Your task to perform on an android device: Where can I buy a nice beach tent? Image 0: 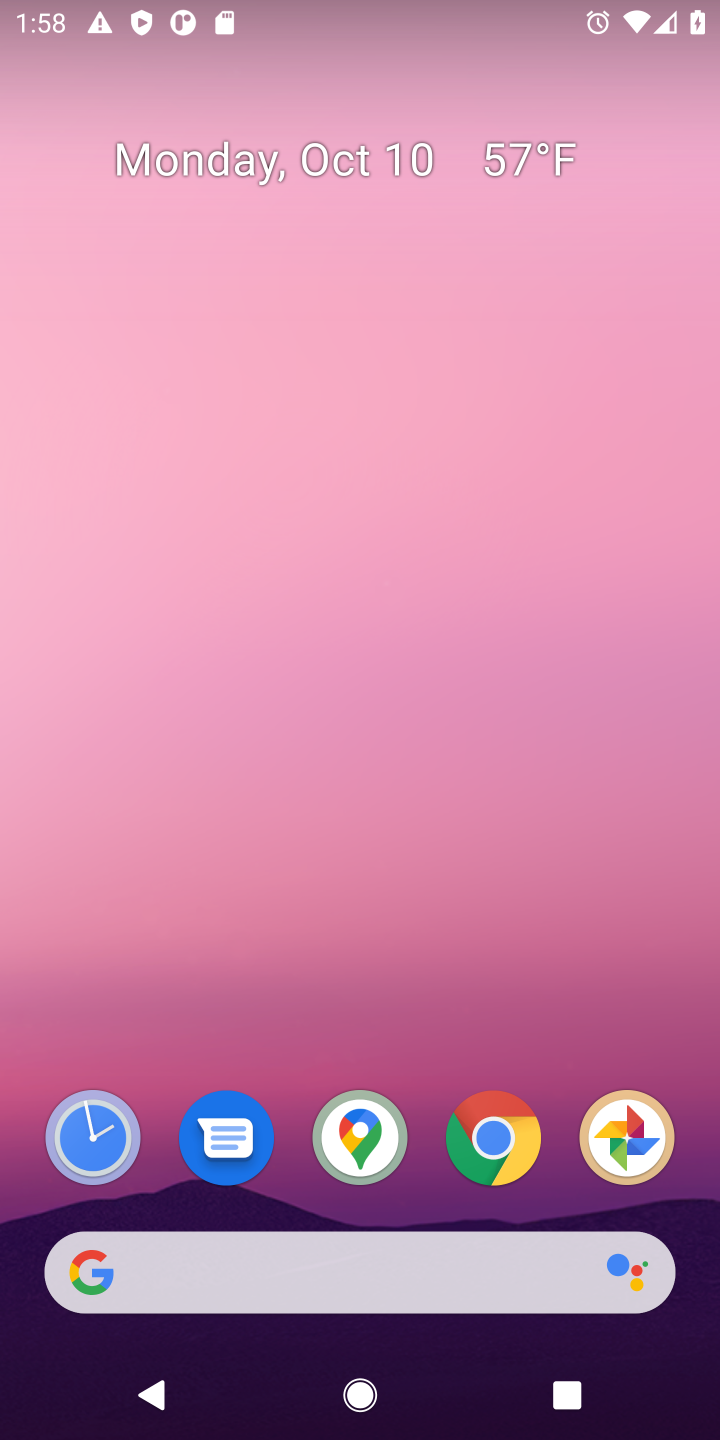
Step 0: click (343, 1263)
Your task to perform on an android device: Where can I buy a nice beach tent? Image 1: 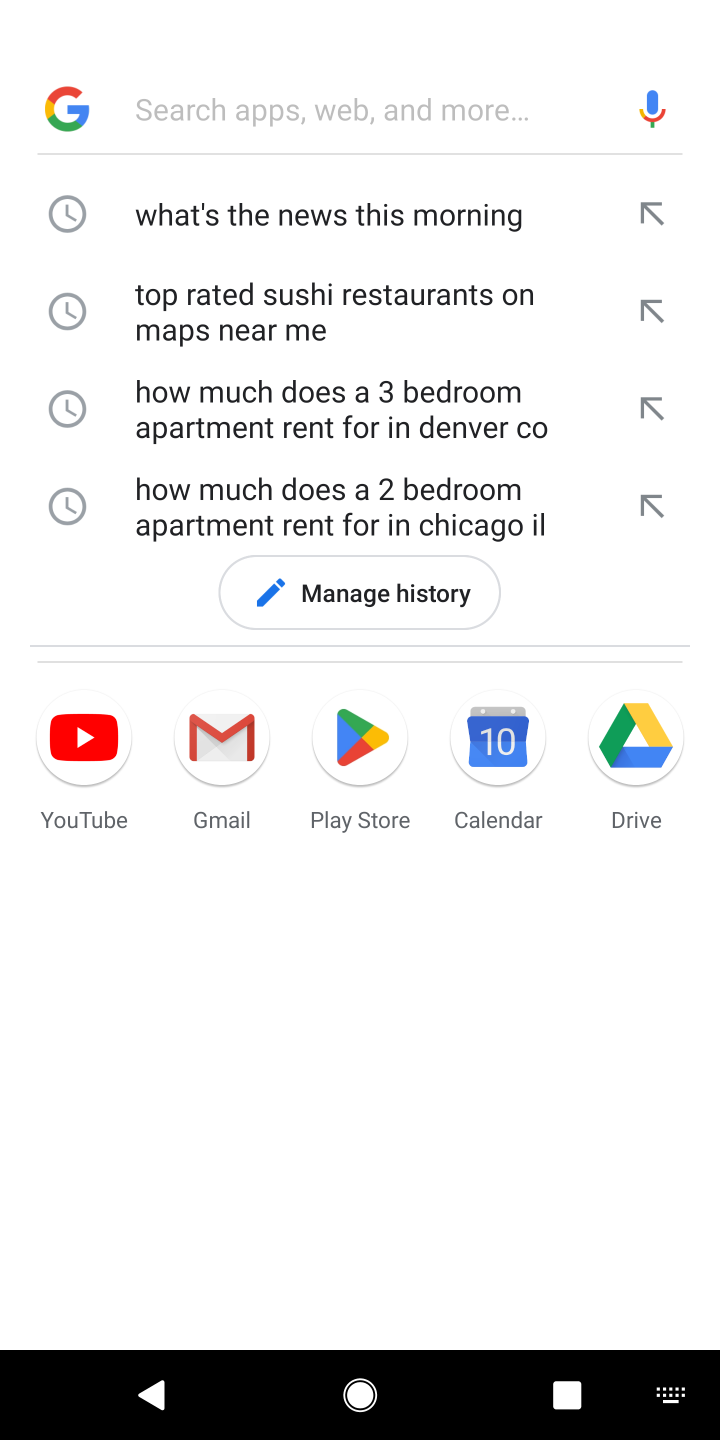
Step 1: type "where can I buy a nice beach tent?"
Your task to perform on an android device: Where can I buy a nice beach tent? Image 2: 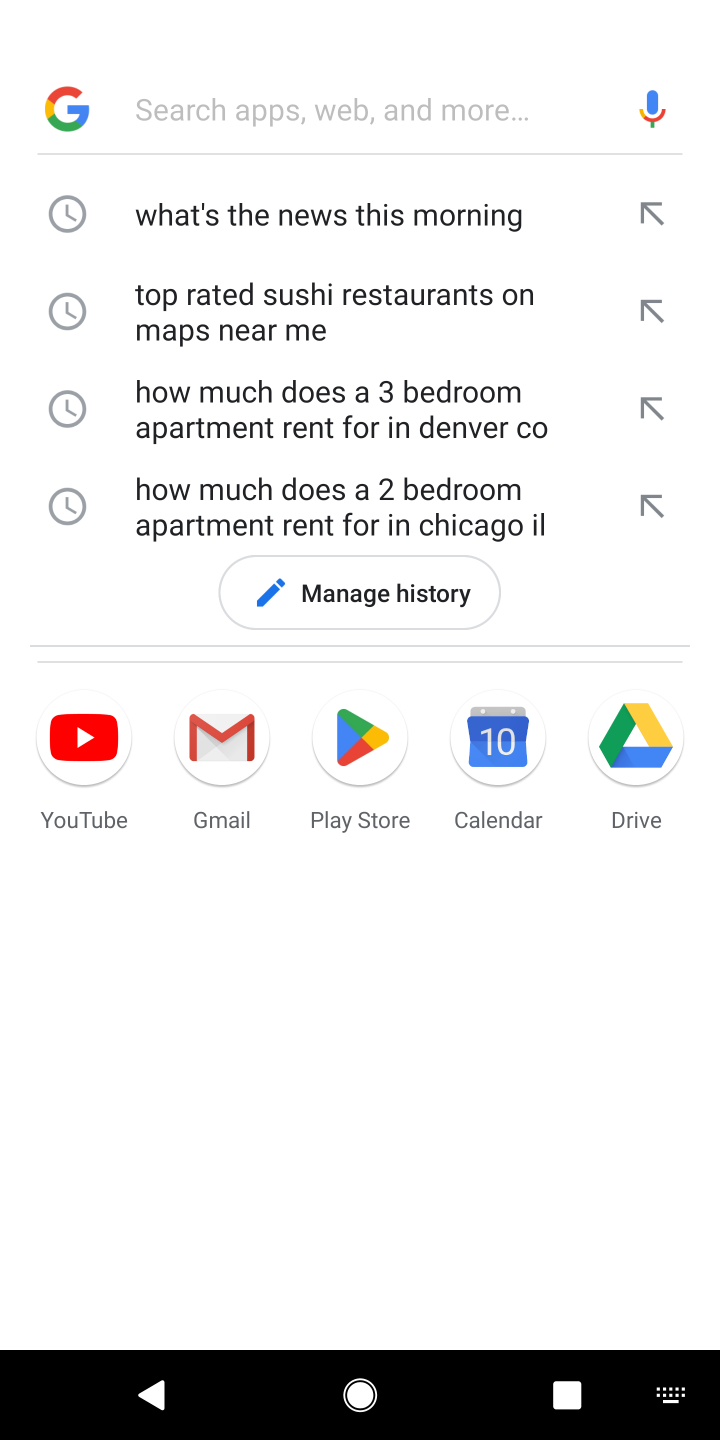
Step 2: click (254, 93)
Your task to perform on an android device: Where can I buy a nice beach tent? Image 3: 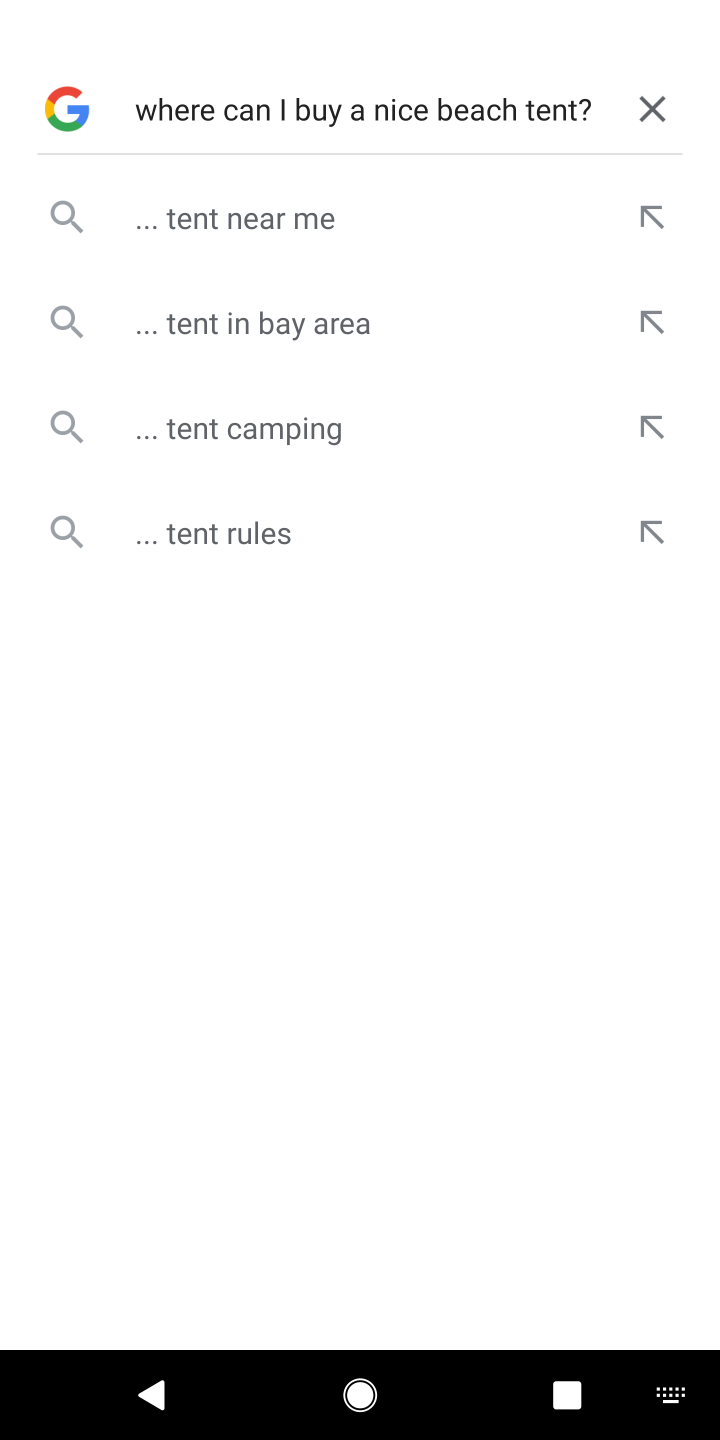
Step 3: click (232, 217)
Your task to perform on an android device: Where can I buy a nice beach tent? Image 4: 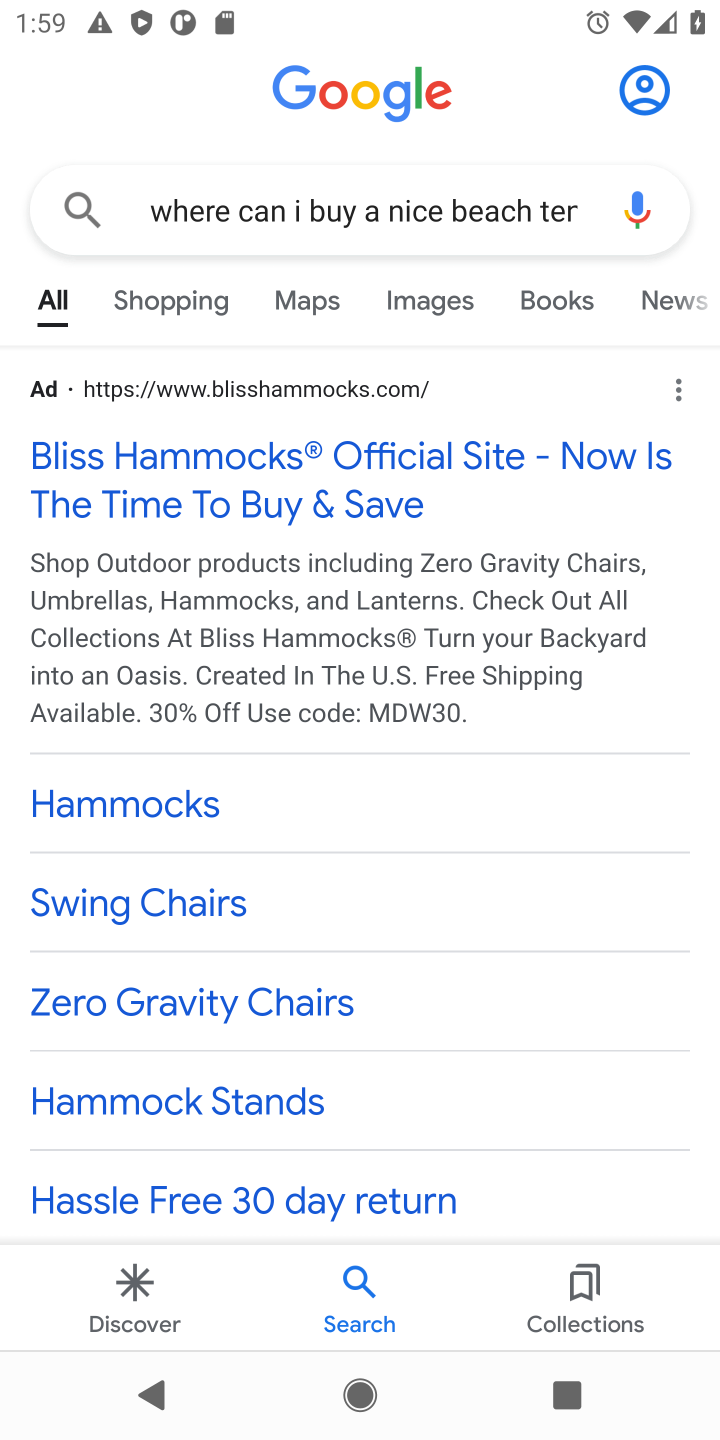
Step 4: drag from (478, 919) to (427, 714)
Your task to perform on an android device: Where can I buy a nice beach tent? Image 5: 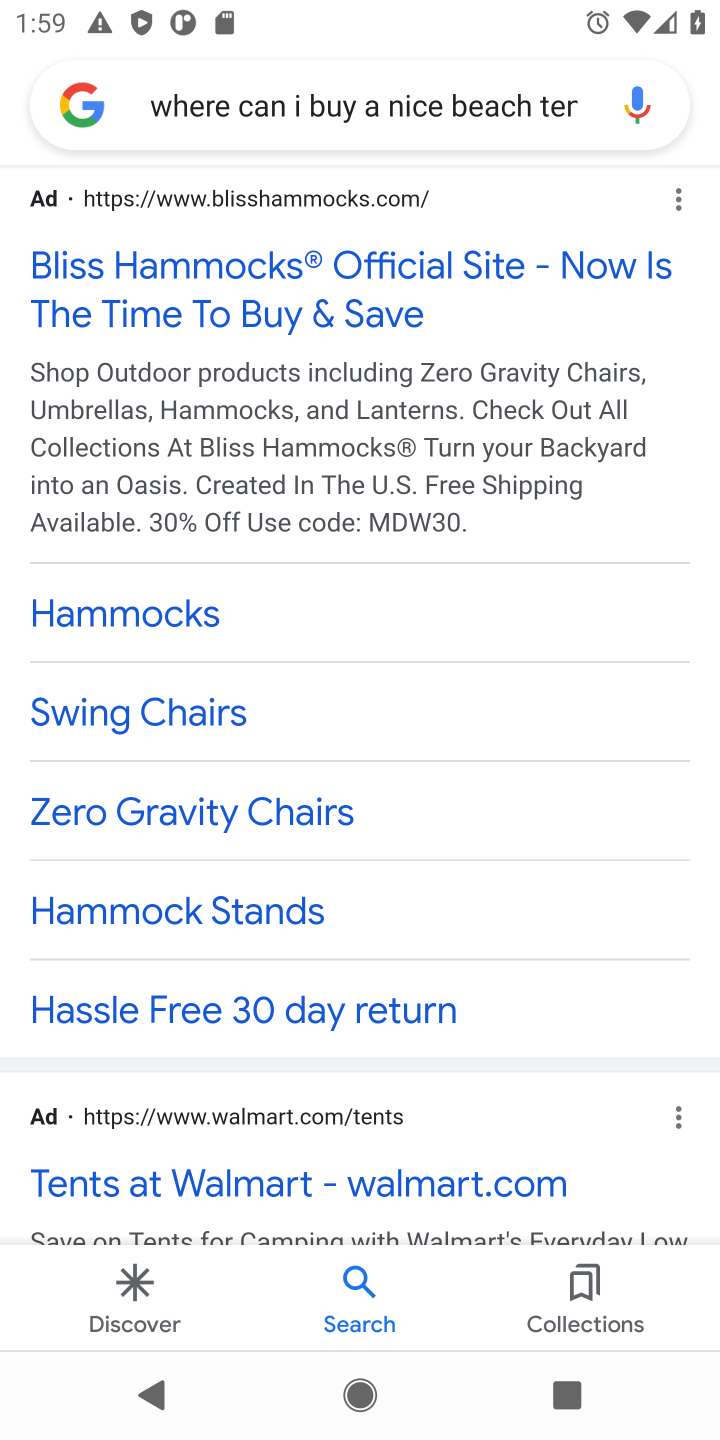
Step 5: click (223, 1182)
Your task to perform on an android device: Where can I buy a nice beach tent? Image 6: 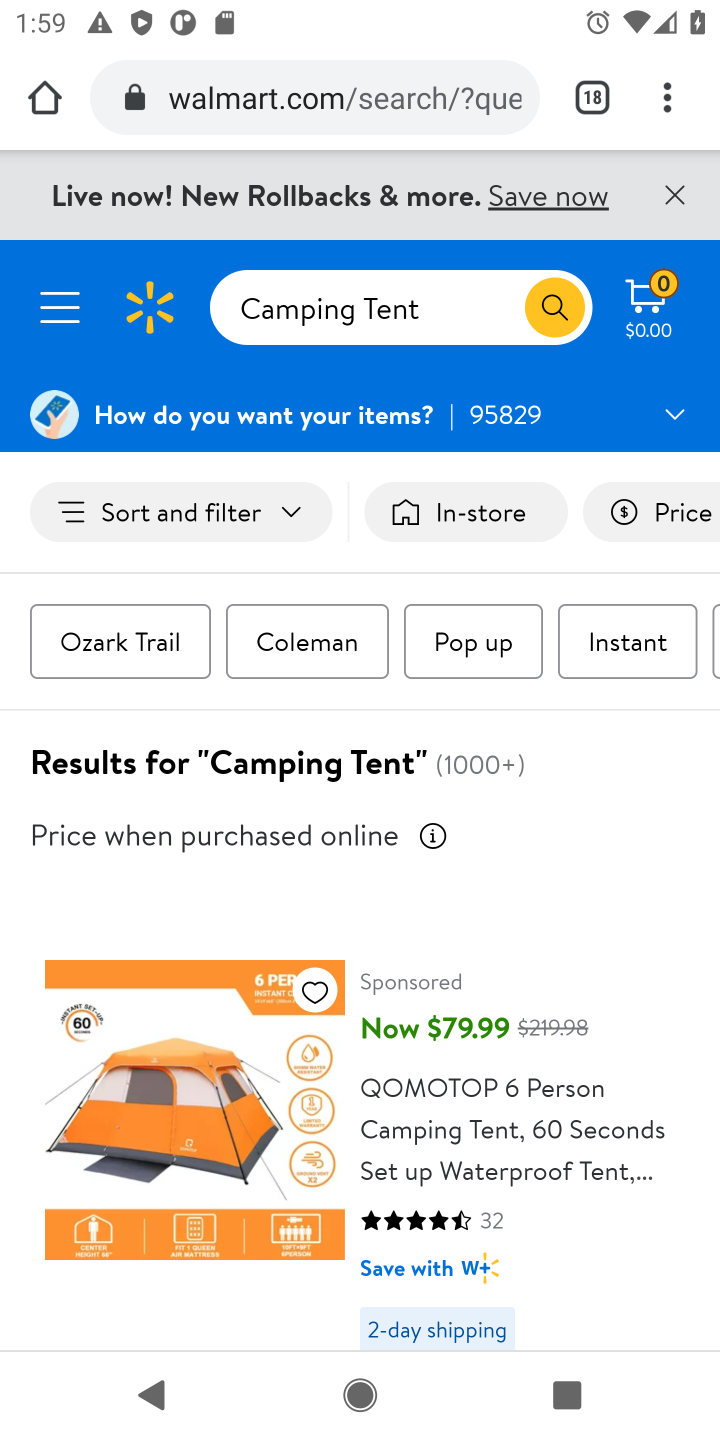
Step 6: task complete